Your task to perform on an android device: Is it going to rain tomorrow? Image 0: 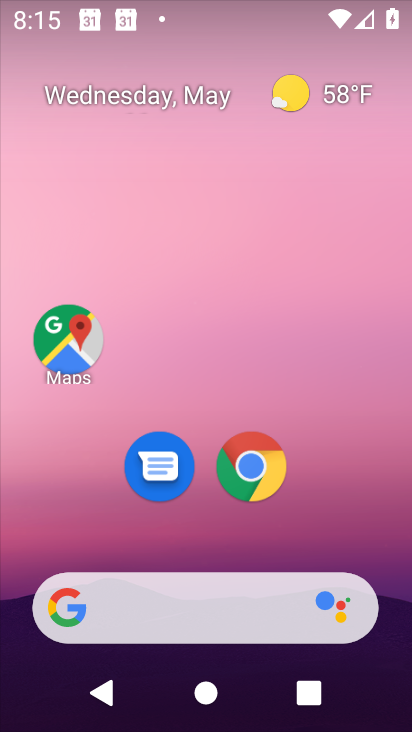
Step 0: press home button
Your task to perform on an android device: Is it going to rain tomorrow? Image 1: 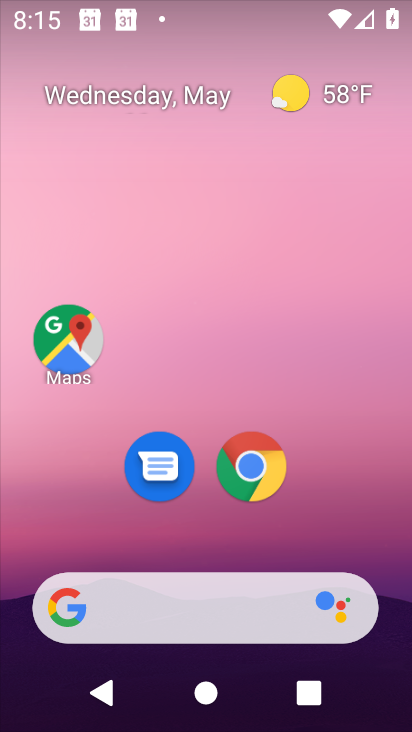
Step 1: click (345, 96)
Your task to perform on an android device: Is it going to rain tomorrow? Image 2: 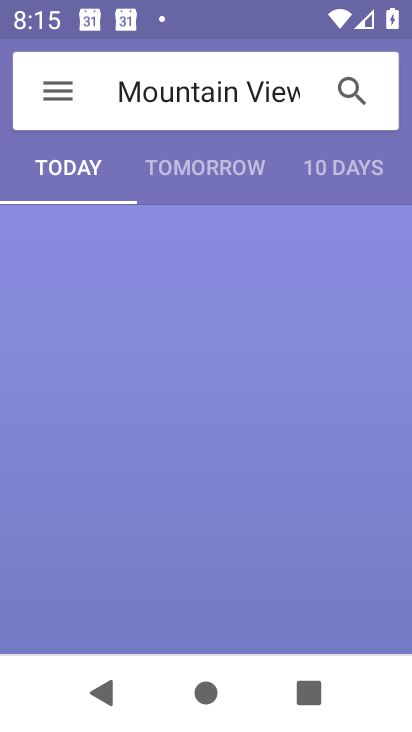
Step 2: click (228, 191)
Your task to perform on an android device: Is it going to rain tomorrow? Image 3: 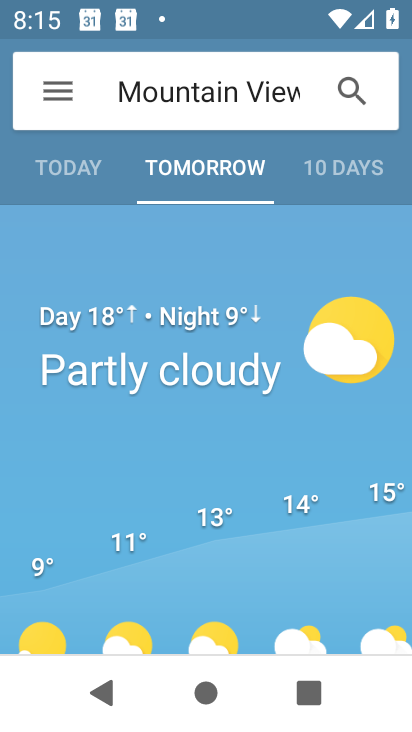
Step 3: task complete